Your task to perform on an android device: find snoozed emails in the gmail app Image 0: 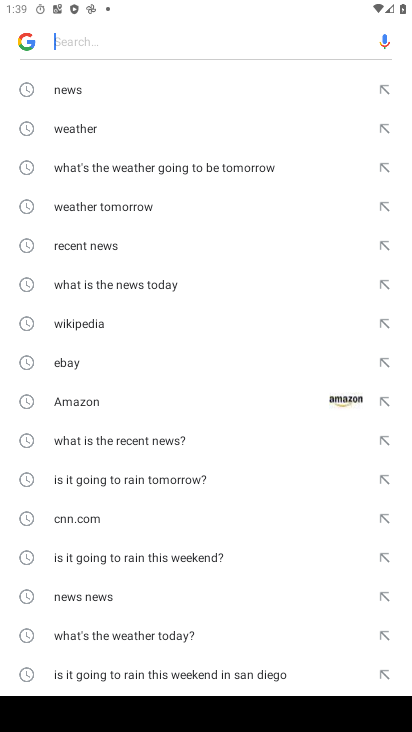
Step 0: press home button
Your task to perform on an android device: find snoozed emails in the gmail app Image 1: 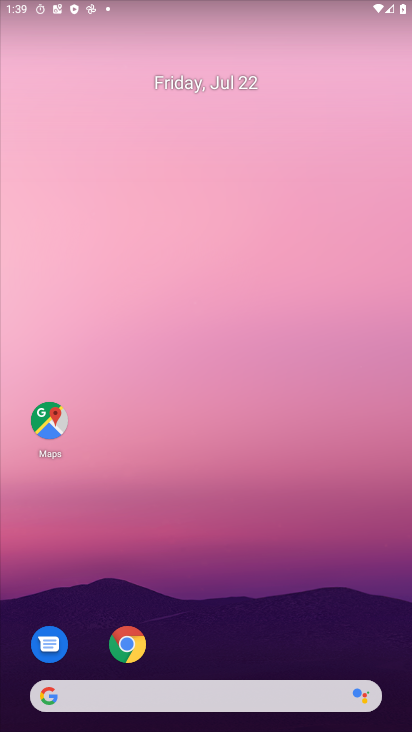
Step 1: drag from (211, 693) to (197, 171)
Your task to perform on an android device: find snoozed emails in the gmail app Image 2: 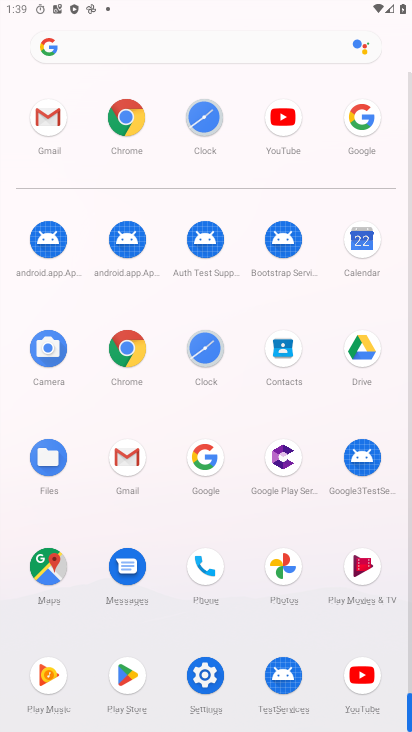
Step 2: click (139, 474)
Your task to perform on an android device: find snoozed emails in the gmail app Image 3: 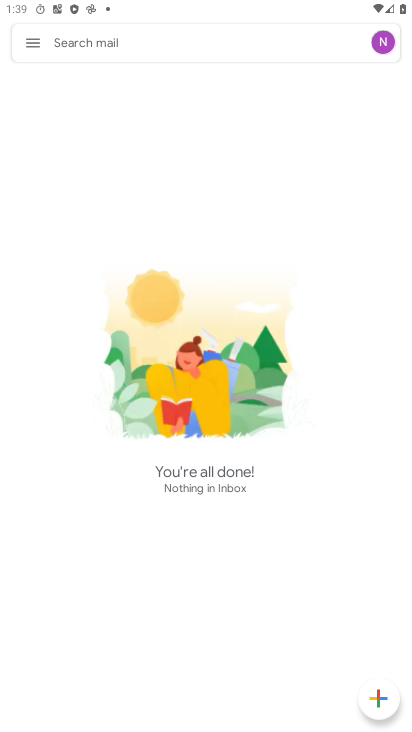
Step 3: click (34, 47)
Your task to perform on an android device: find snoozed emails in the gmail app Image 4: 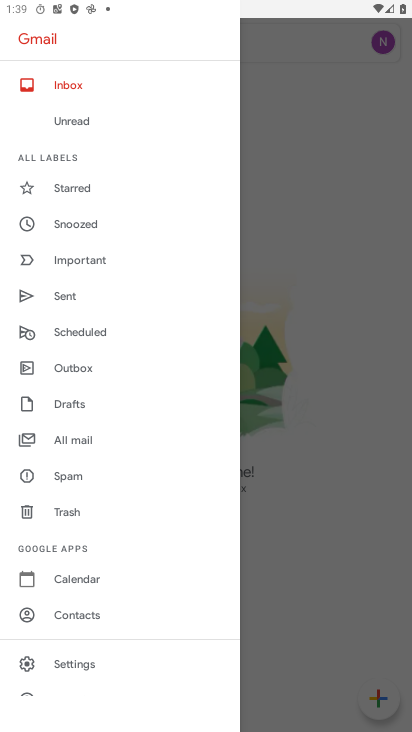
Step 4: click (77, 234)
Your task to perform on an android device: find snoozed emails in the gmail app Image 5: 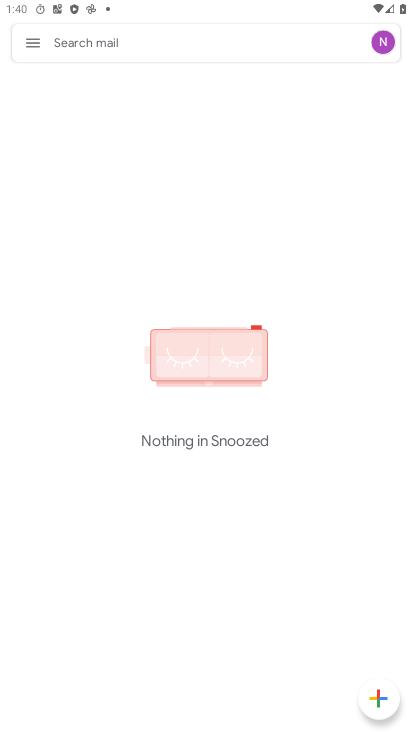
Step 5: task complete